Your task to perform on an android device: allow notifications from all sites in the chrome app Image 0: 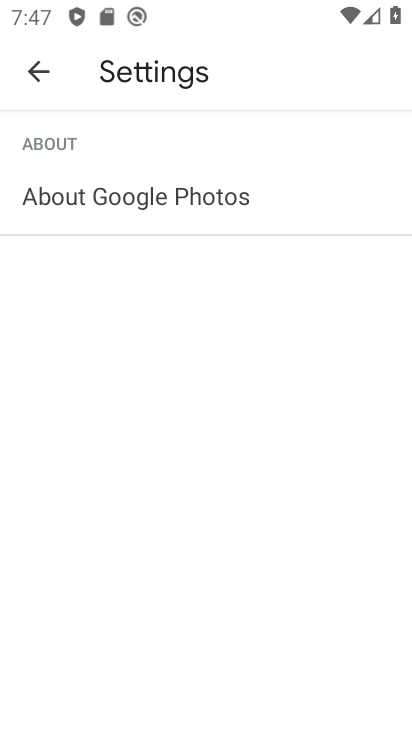
Step 0: press home button
Your task to perform on an android device: allow notifications from all sites in the chrome app Image 1: 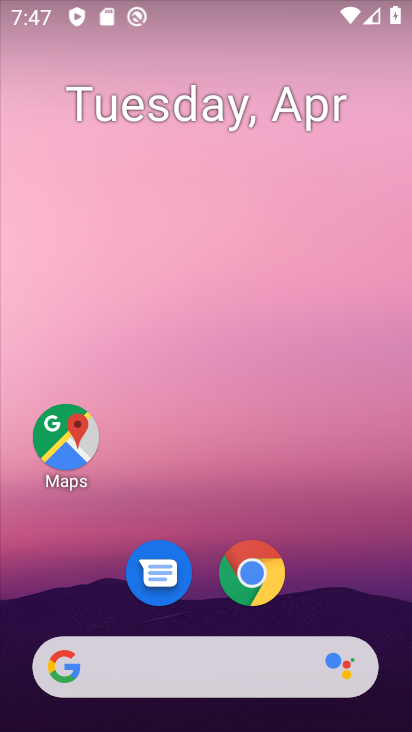
Step 1: drag from (258, 48) to (249, 408)
Your task to perform on an android device: allow notifications from all sites in the chrome app Image 2: 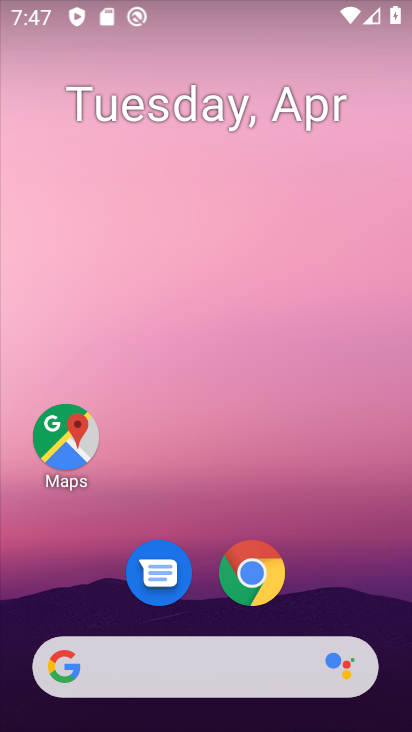
Step 2: drag from (234, 7) to (191, 527)
Your task to perform on an android device: allow notifications from all sites in the chrome app Image 3: 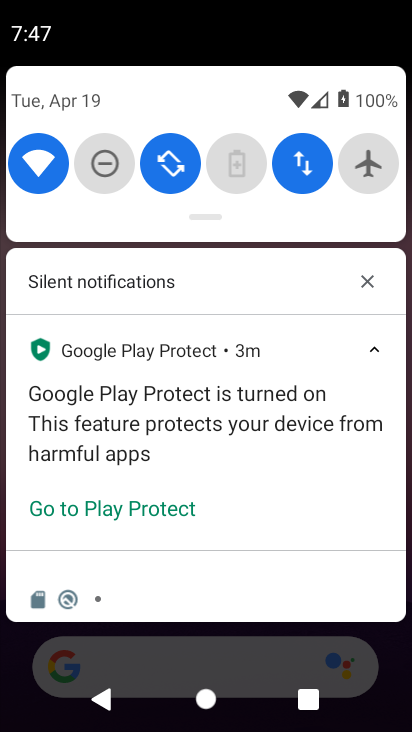
Step 3: drag from (220, 105) to (228, 609)
Your task to perform on an android device: allow notifications from all sites in the chrome app Image 4: 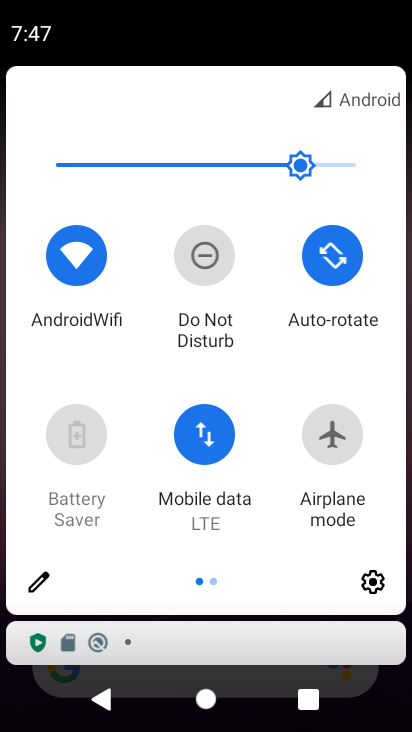
Step 4: click (374, 587)
Your task to perform on an android device: allow notifications from all sites in the chrome app Image 5: 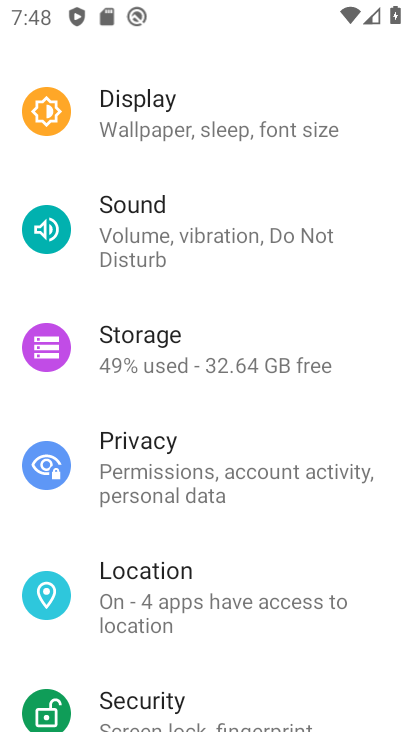
Step 5: drag from (70, 639) to (105, 180)
Your task to perform on an android device: allow notifications from all sites in the chrome app Image 6: 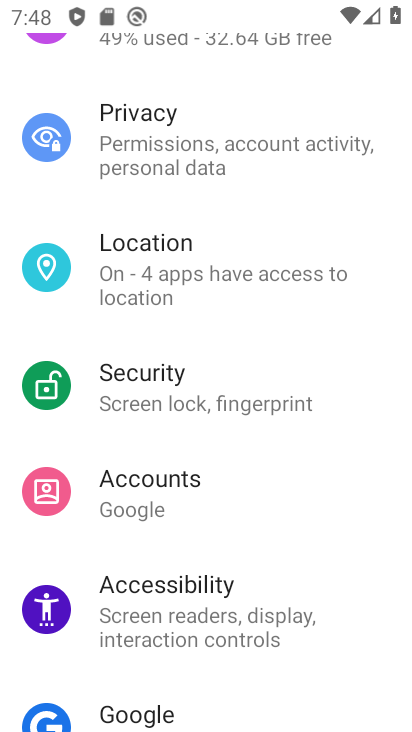
Step 6: drag from (225, 82) to (194, 660)
Your task to perform on an android device: allow notifications from all sites in the chrome app Image 7: 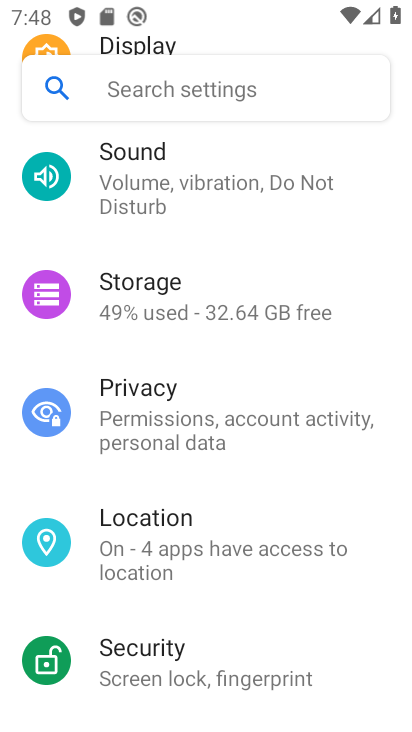
Step 7: drag from (257, 169) to (253, 540)
Your task to perform on an android device: allow notifications from all sites in the chrome app Image 8: 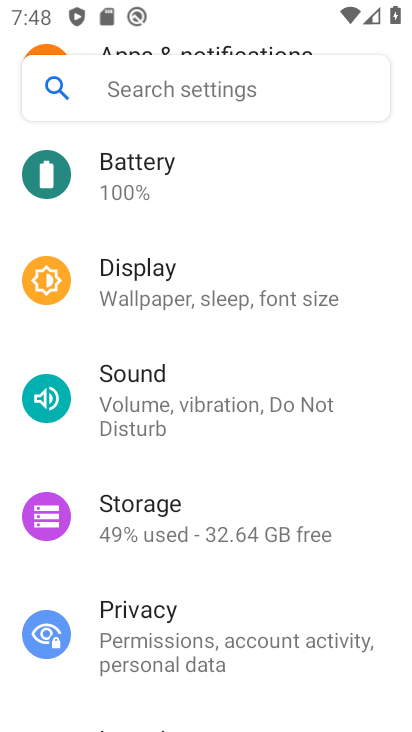
Step 8: drag from (221, 209) to (239, 634)
Your task to perform on an android device: allow notifications from all sites in the chrome app Image 9: 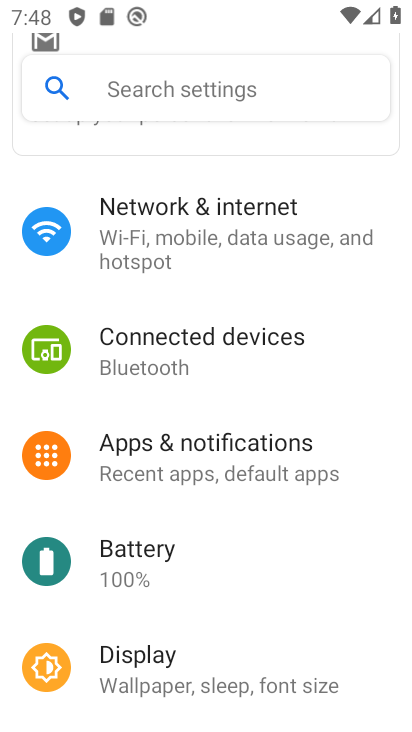
Step 9: click (201, 467)
Your task to perform on an android device: allow notifications from all sites in the chrome app Image 10: 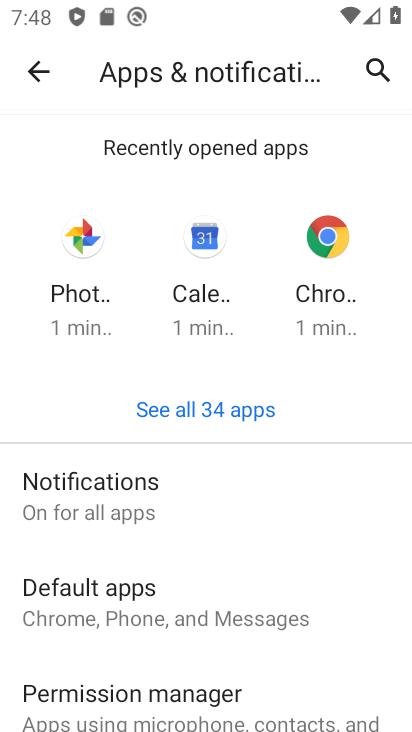
Step 10: click (325, 251)
Your task to perform on an android device: allow notifications from all sites in the chrome app Image 11: 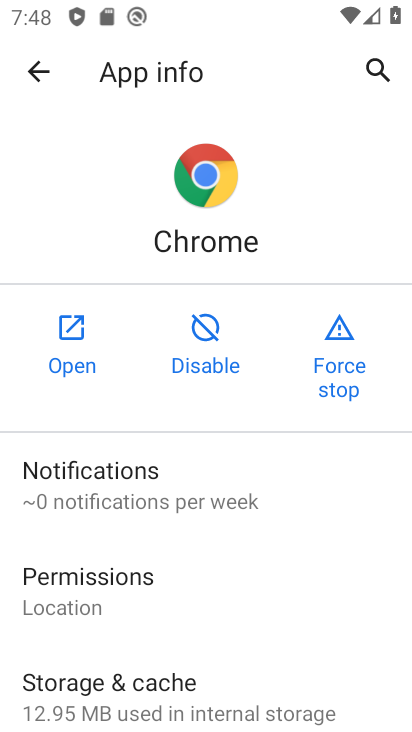
Step 11: click (164, 497)
Your task to perform on an android device: allow notifications from all sites in the chrome app Image 12: 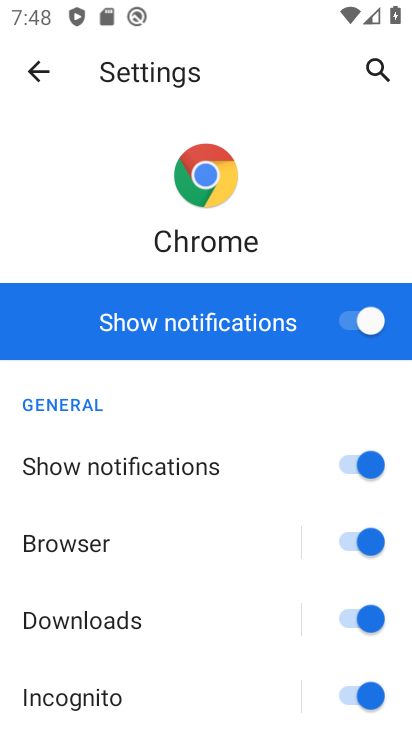
Step 12: task complete